Your task to perform on an android device: Find coffee shops on Maps Image 0: 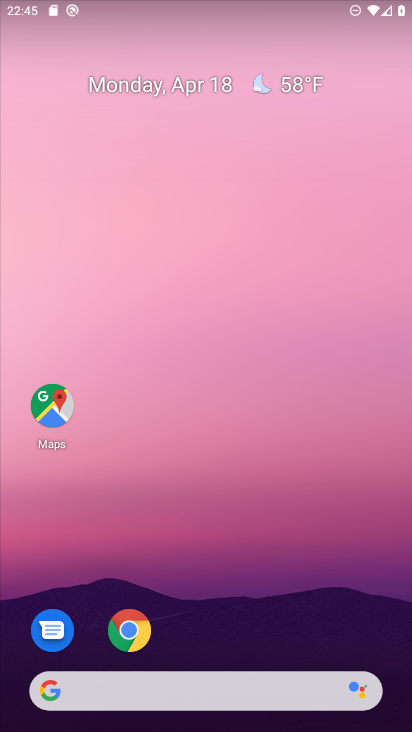
Step 0: click (42, 391)
Your task to perform on an android device: Find coffee shops on Maps Image 1: 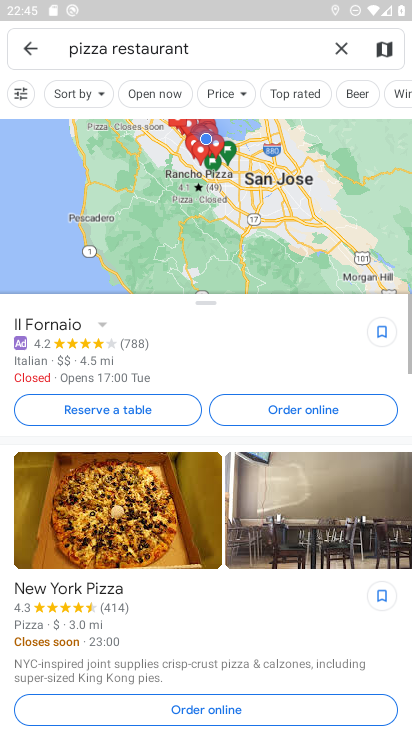
Step 1: click (351, 49)
Your task to perform on an android device: Find coffee shops on Maps Image 2: 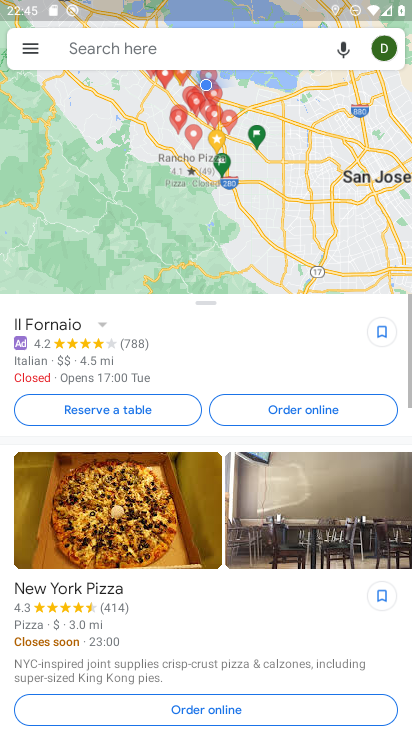
Step 2: click (251, 60)
Your task to perform on an android device: Find coffee shops on Maps Image 3: 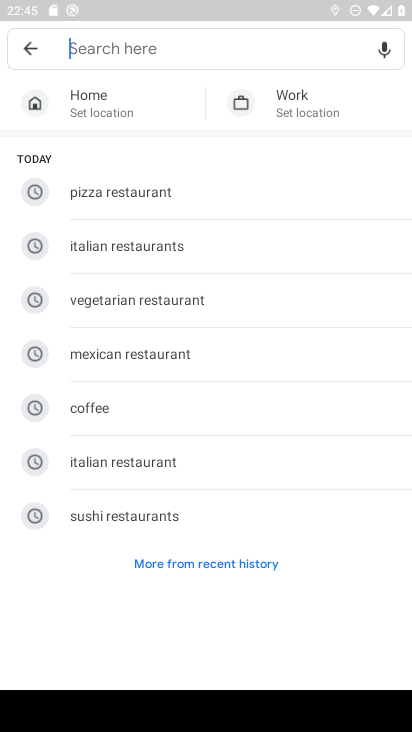
Step 3: click (153, 419)
Your task to perform on an android device: Find coffee shops on Maps Image 4: 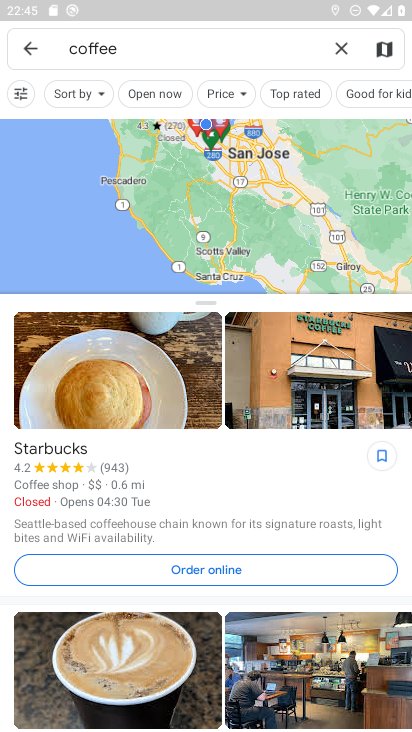
Step 4: task complete